Your task to perform on an android device: Is it going to rain this weekend? Image 0: 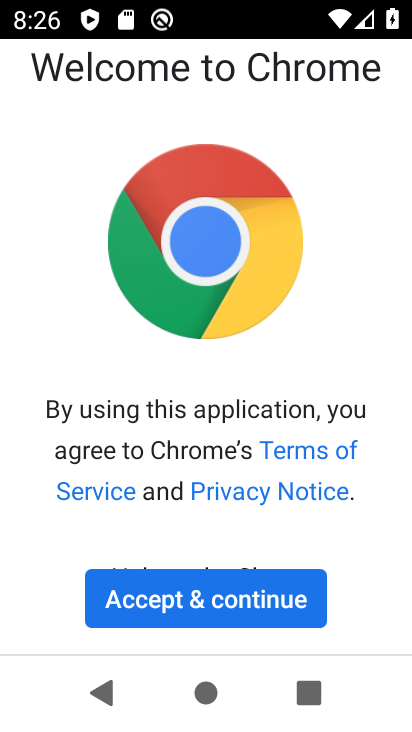
Step 0: press home button
Your task to perform on an android device: Is it going to rain this weekend? Image 1: 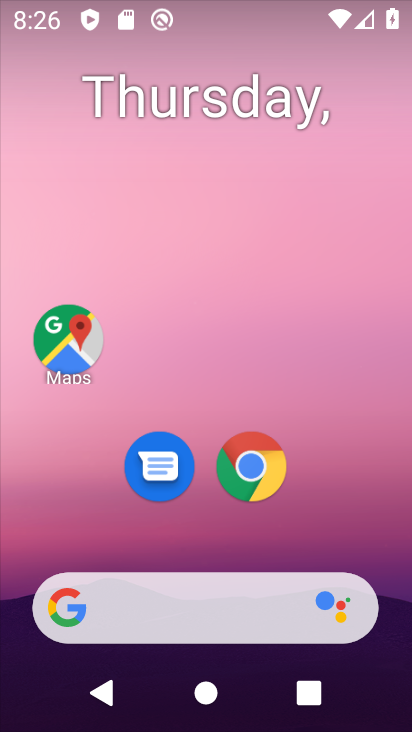
Step 1: click (82, 608)
Your task to perform on an android device: Is it going to rain this weekend? Image 2: 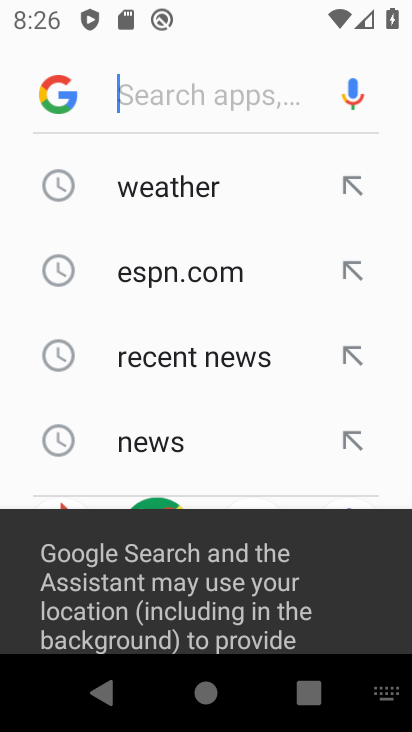
Step 2: click (193, 190)
Your task to perform on an android device: Is it going to rain this weekend? Image 3: 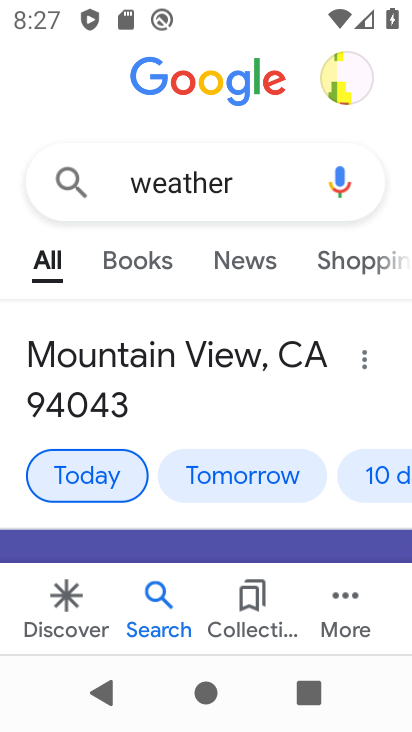
Step 3: click (378, 473)
Your task to perform on an android device: Is it going to rain this weekend? Image 4: 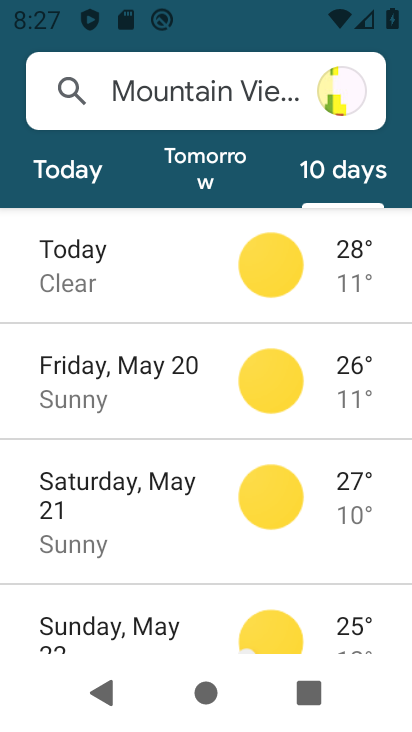
Step 4: click (137, 499)
Your task to perform on an android device: Is it going to rain this weekend? Image 5: 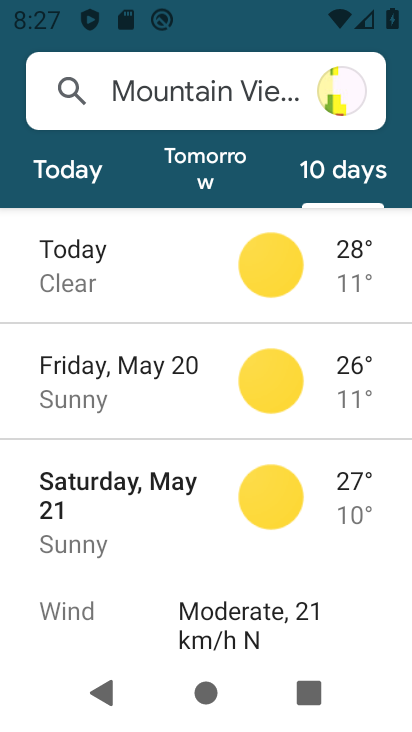
Step 5: task complete